Your task to perform on an android device: turn on wifi Image 0: 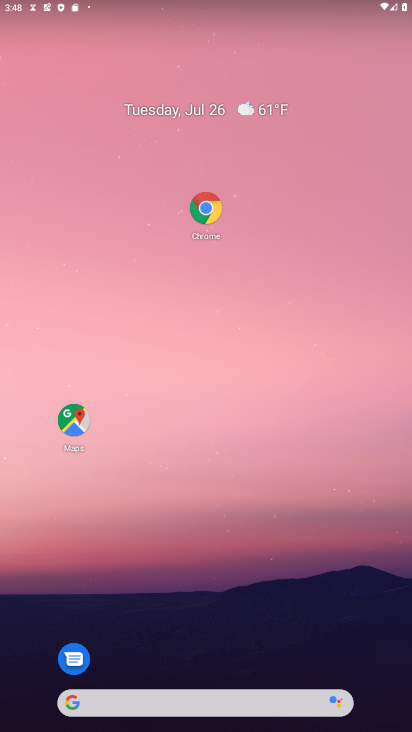
Step 0: drag from (187, 484) to (167, 216)
Your task to perform on an android device: turn on wifi Image 1: 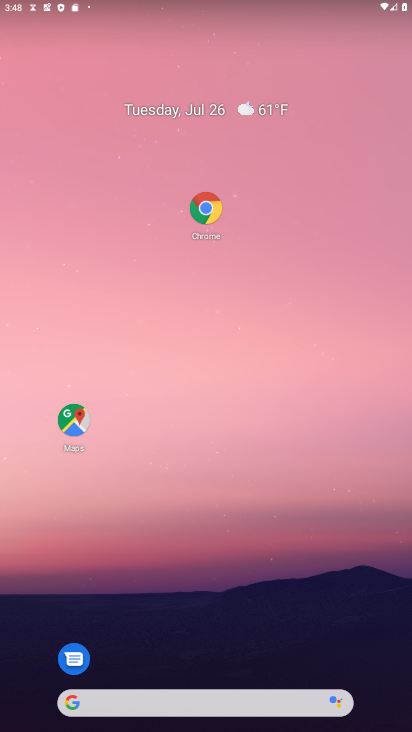
Step 1: drag from (234, 194) to (251, 8)
Your task to perform on an android device: turn on wifi Image 2: 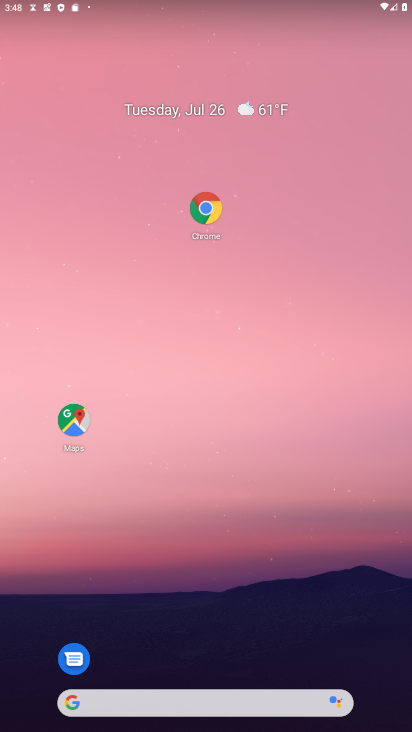
Step 2: drag from (183, 441) to (145, 49)
Your task to perform on an android device: turn on wifi Image 3: 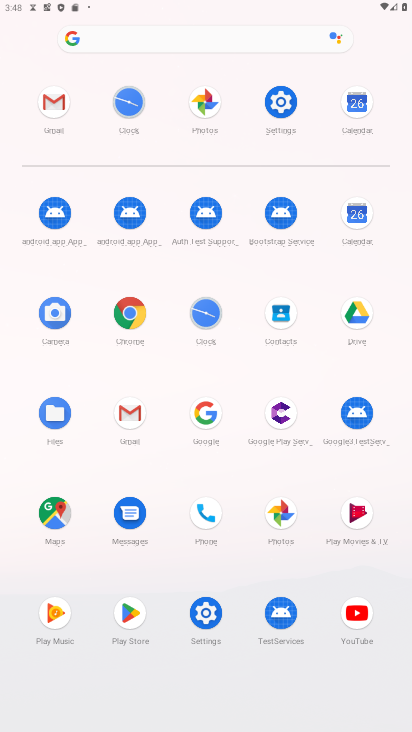
Step 3: click (278, 119)
Your task to perform on an android device: turn on wifi Image 4: 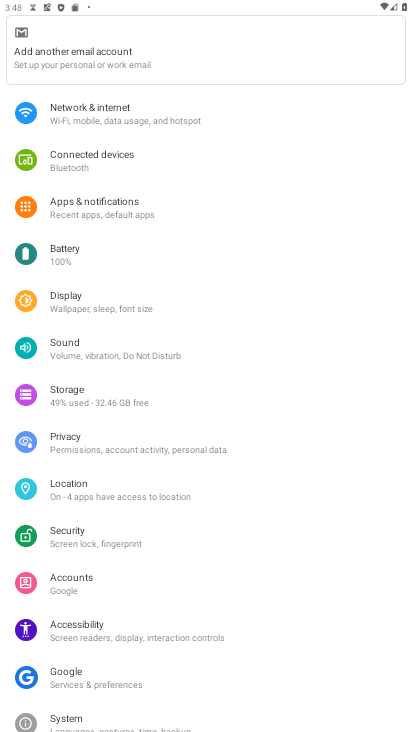
Step 4: click (146, 127)
Your task to perform on an android device: turn on wifi Image 5: 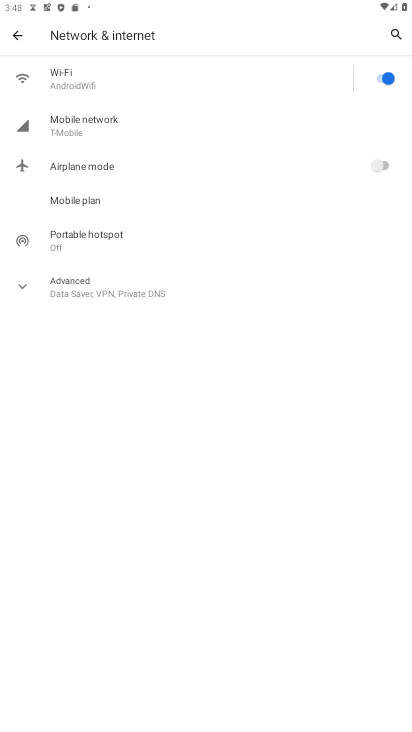
Step 5: task complete